Your task to perform on an android device: Search for Italian restaurants on Maps Image 0: 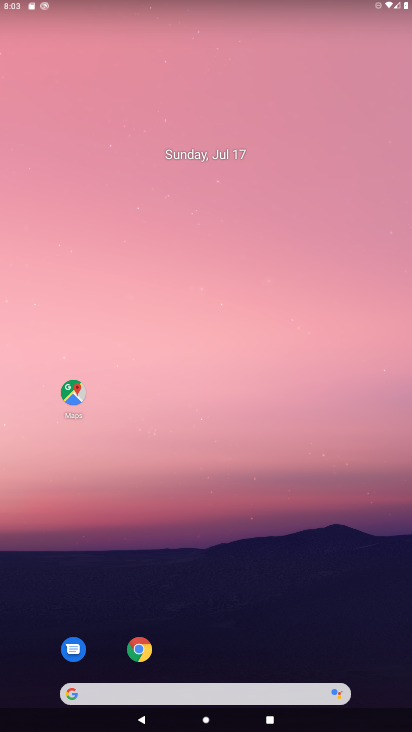
Step 0: click (82, 392)
Your task to perform on an android device: Search for Italian restaurants on Maps Image 1: 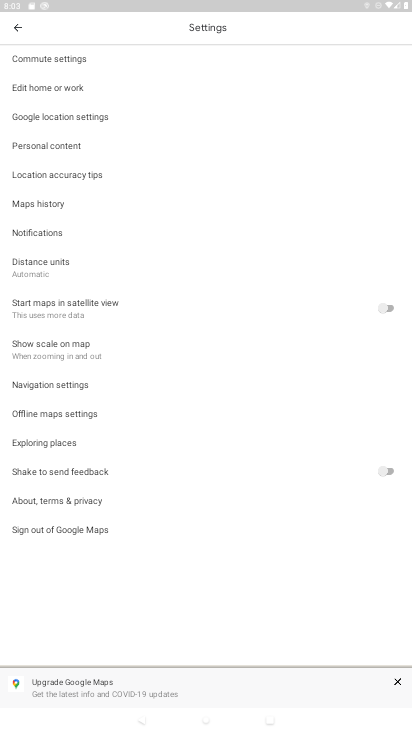
Step 1: click (31, 26)
Your task to perform on an android device: Search for Italian restaurants on Maps Image 2: 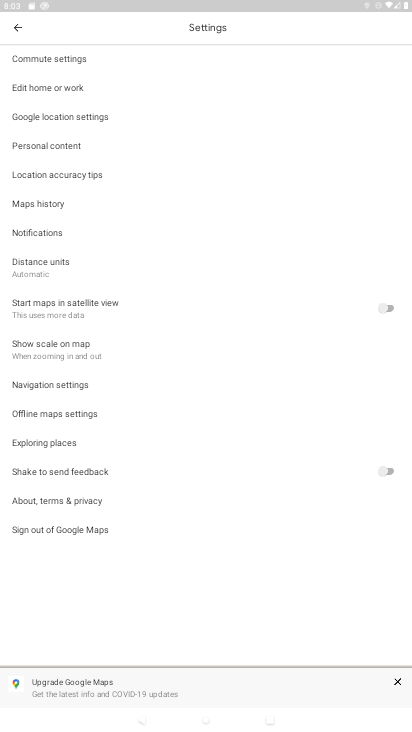
Step 2: click (16, 29)
Your task to perform on an android device: Search for Italian restaurants on Maps Image 3: 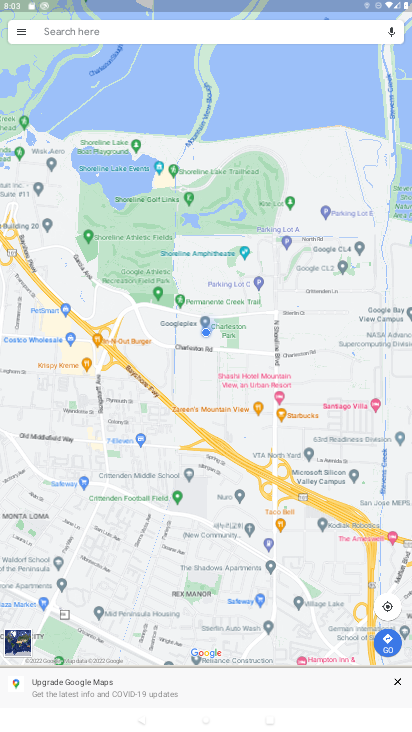
Step 3: click (193, 39)
Your task to perform on an android device: Search for Italian restaurants on Maps Image 4: 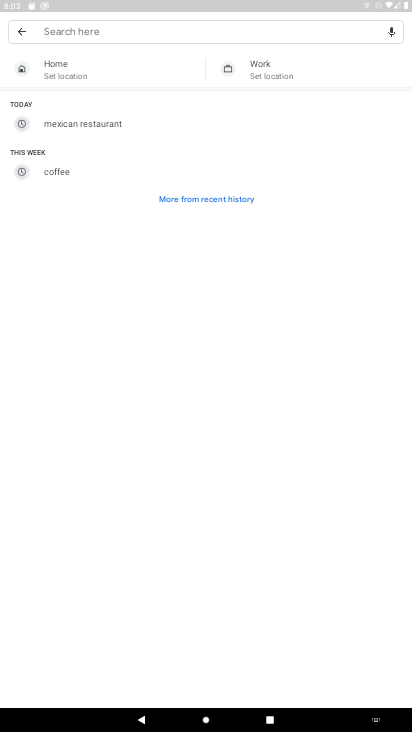
Step 4: type "Italian restaurants"
Your task to perform on an android device: Search for Italian restaurants on Maps Image 5: 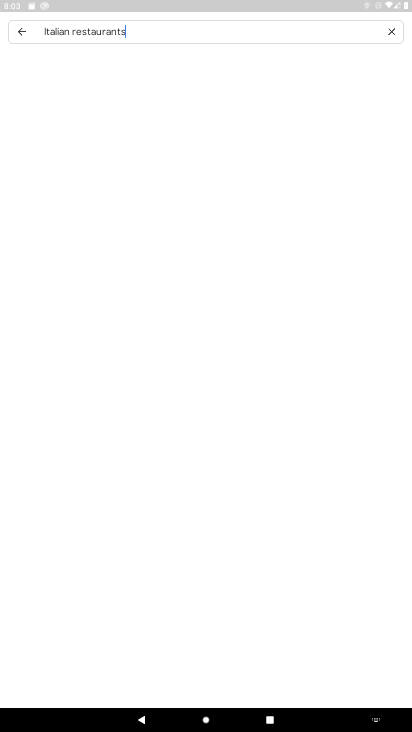
Step 5: type ""
Your task to perform on an android device: Search for Italian restaurants on Maps Image 6: 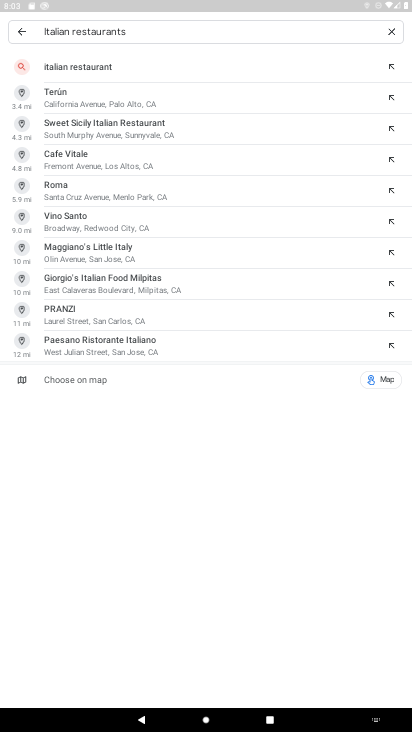
Step 6: click (62, 69)
Your task to perform on an android device: Search for Italian restaurants on Maps Image 7: 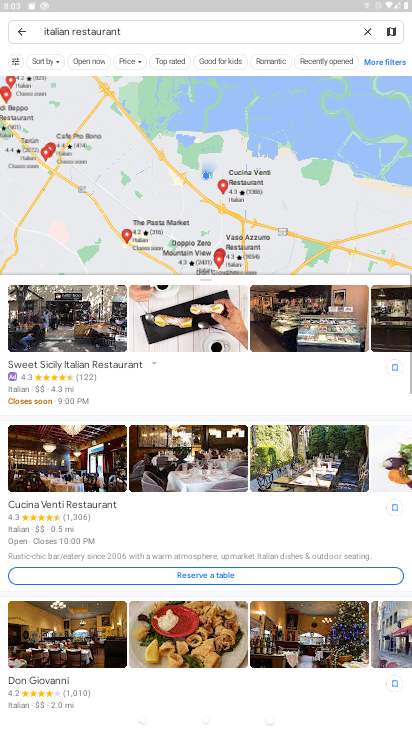
Step 7: task complete